Your task to perform on an android device: Open the phone app and click the voicemail tab. Image 0: 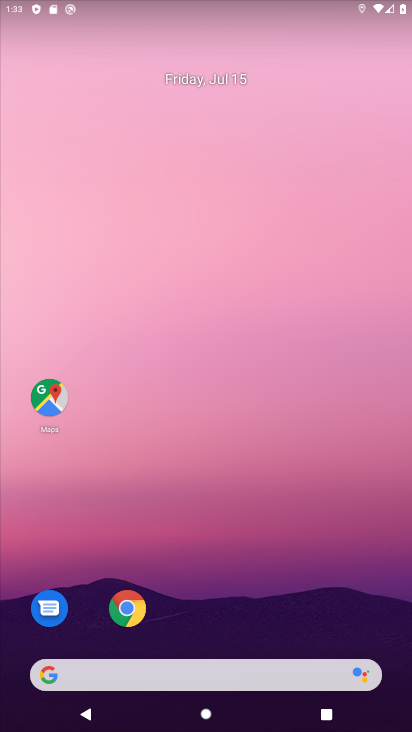
Step 0: drag from (227, 696) to (211, 167)
Your task to perform on an android device: Open the phone app and click the voicemail tab. Image 1: 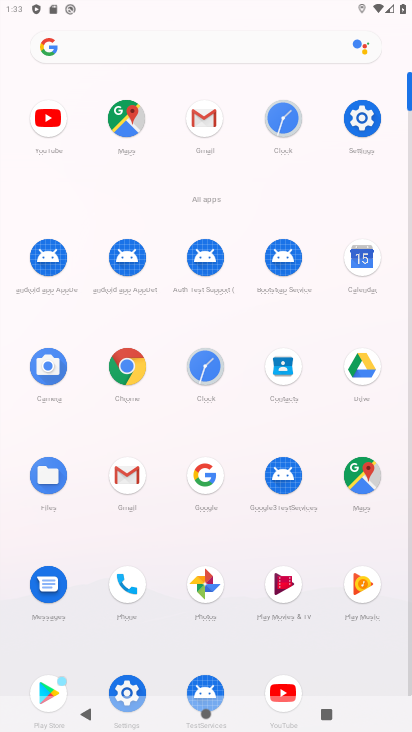
Step 1: click (123, 597)
Your task to perform on an android device: Open the phone app and click the voicemail tab. Image 2: 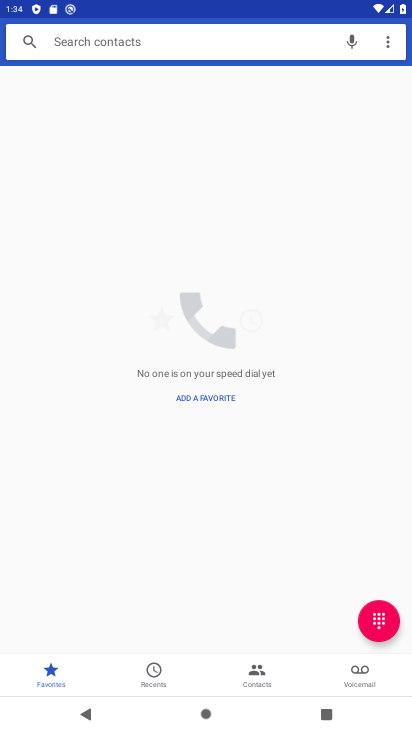
Step 2: click (370, 662)
Your task to perform on an android device: Open the phone app and click the voicemail tab. Image 3: 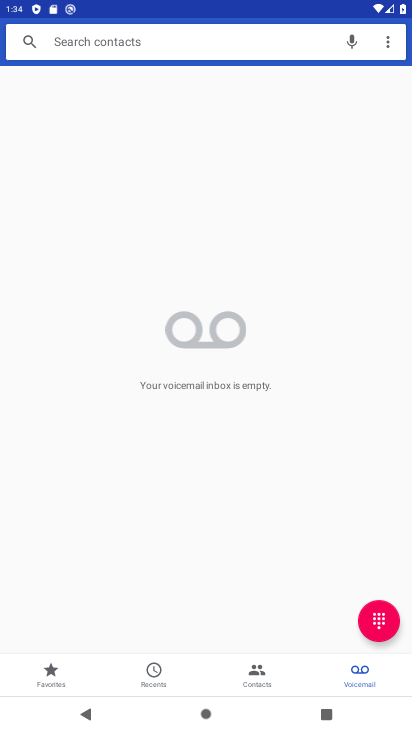
Step 3: task complete